Your task to perform on an android device: set default search engine in the chrome app Image 0: 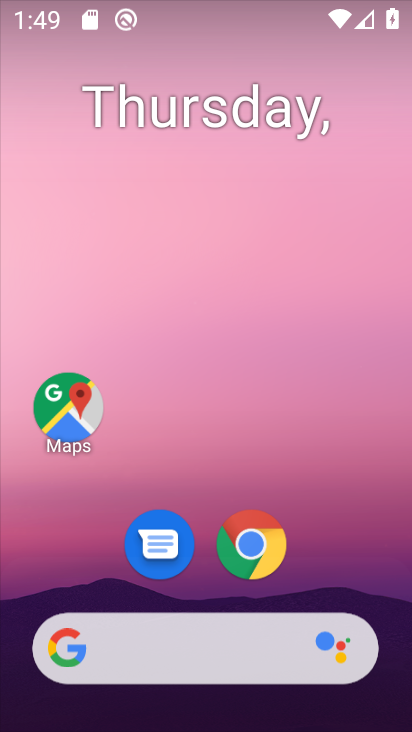
Step 0: click (261, 555)
Your task to perform on an android device: set default search engine in the chrome app Image 1: 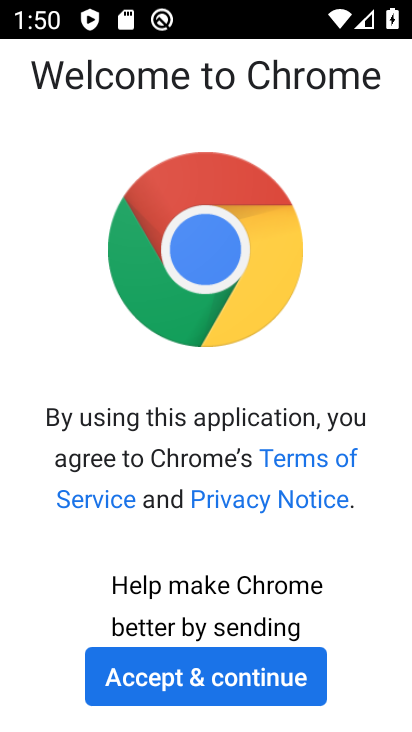
Step 1: click (242, 669)
Your task to perform on an android device: set default search engine in the chrome app Image 2: 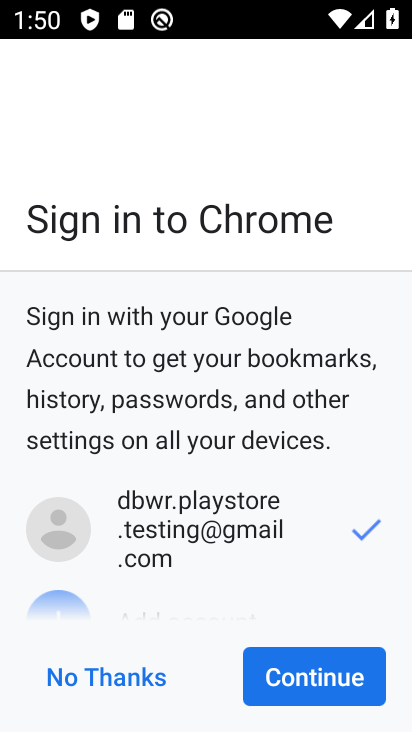
Step 2: click (315, 667)
Your task to perform on an android device: set default search engine in the chrome app Image 3: 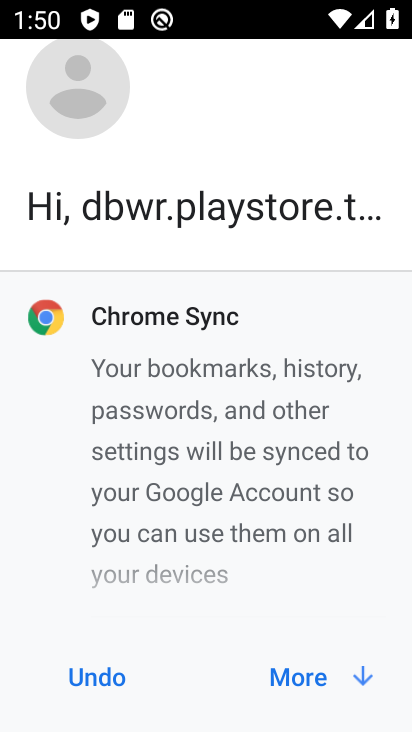
Step 3: click (315, 667)
Your task to perform on an android device: set default search engine in the chrome app Image 4: 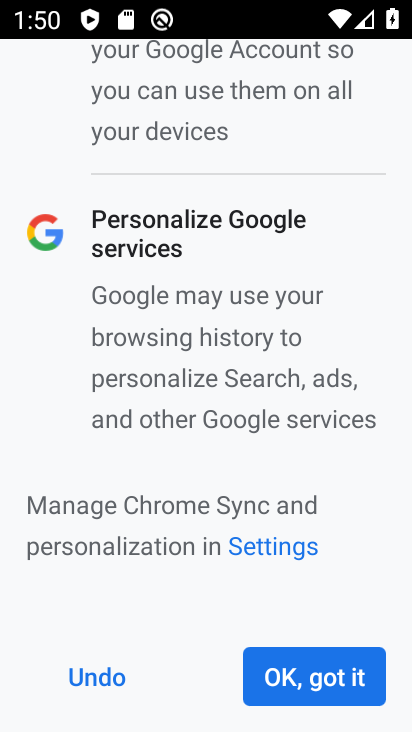
Step 4: click (315, 667)
Your task to perform on an android device: set default search engine in the chrome app Image 5: 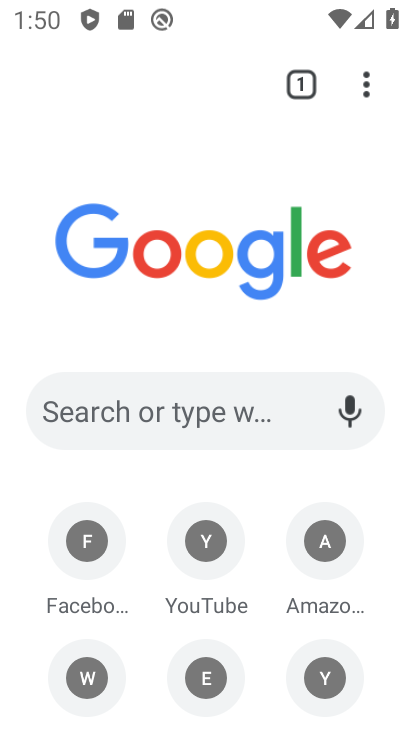
Step 5: click (364, 80)
Your task to perform on an android device: set default search engine in the chrome app Image 6: 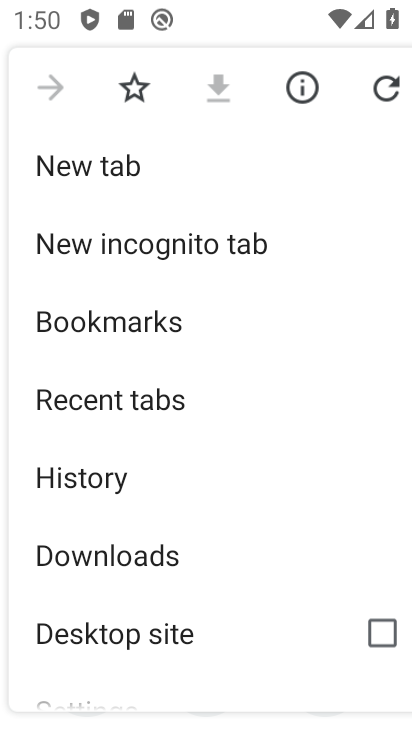
Step 6: drag from (104, 667) to (120, 551)
Your task to perform on an android device: set default search engine in the chrome app Image 7: 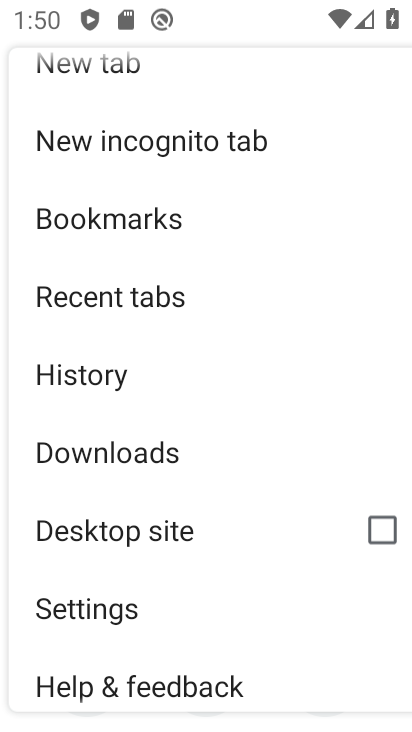
Step 7: click (100, 621)
Your task to perform on an android device: set default search engine in the chrome app Image 8: 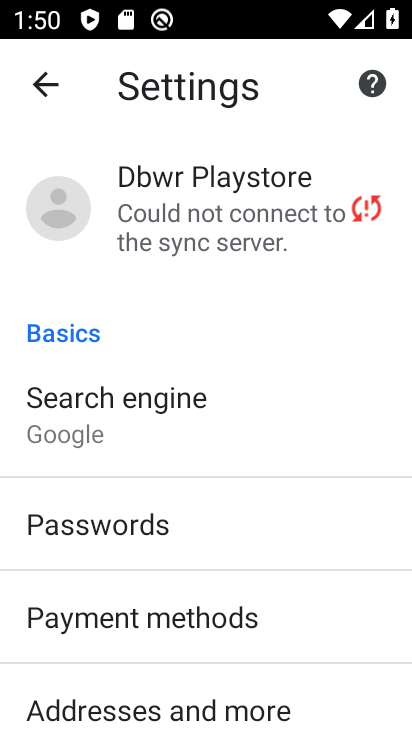
Step 8: click (79, 435)
Your task to perform on an android device: set default search engine in the chrome app Image 9: 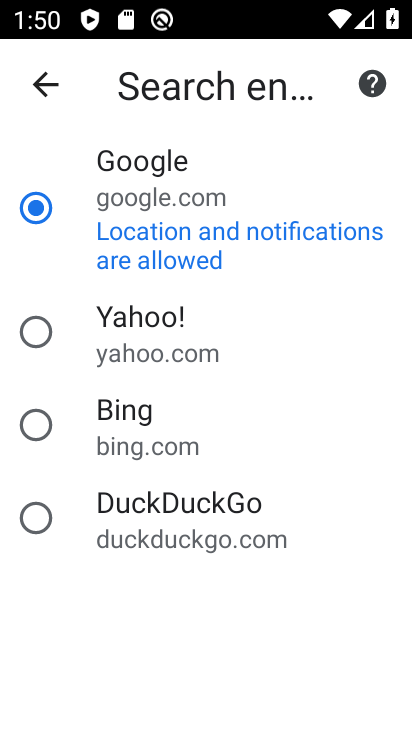
Step 9: click (111, 445)
Your task to perform on an android device: set default search engine in the chrome app Image 10: 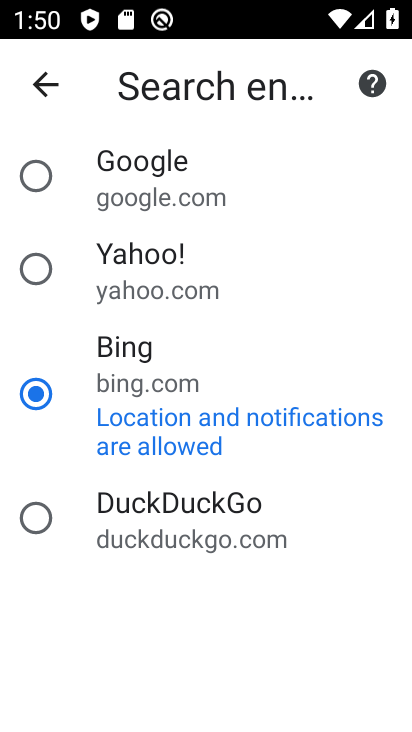
Step 10: task complete